Your task to perform on an android device: Show me popular games on the Play Store Image 0: 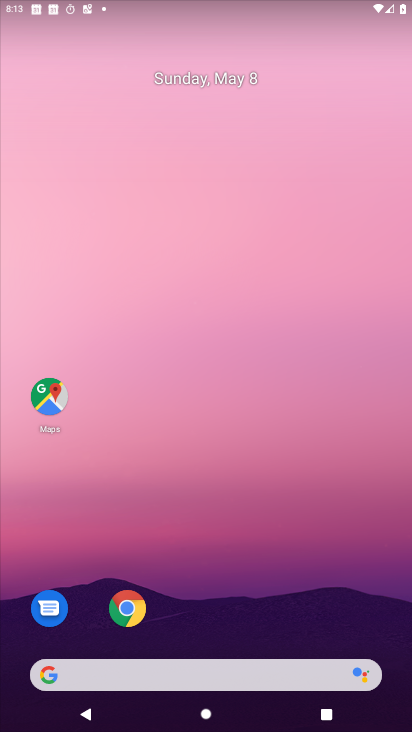
Step 0: drag from (265, 562) to (293, 124)
Your task to perform on an android device: Show me popular games on the Play Store Image 1: 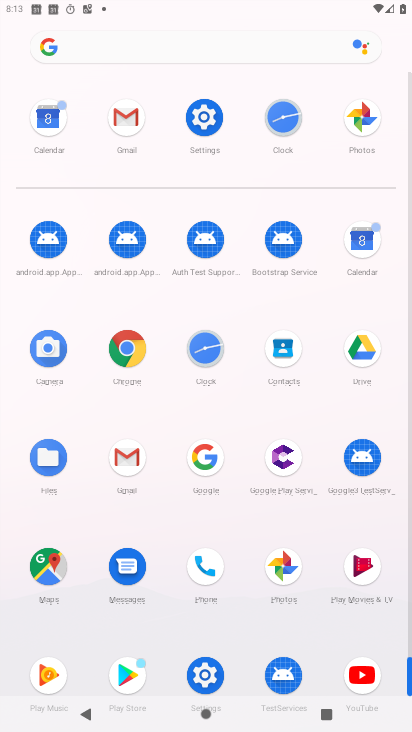
Step 1: click (126, 661)
Your task to perform on an android device: Show me popular games on the Play Store Image 2: 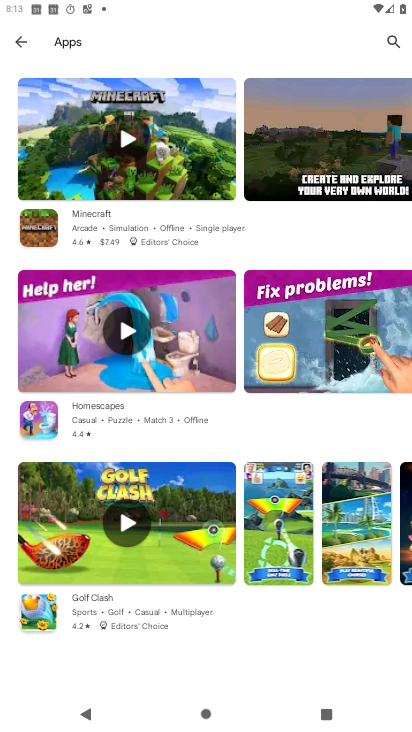
Step 2: press back button
Your task to perform on an android device: Show me popular games on the Play Store Image 3: 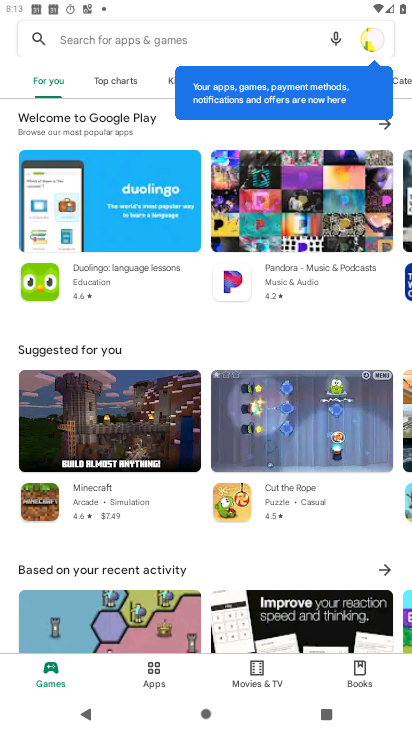
Step 3: drag from (231, 545) to (235, 283)
Your task to perform on an android device: Show me popular games on the Play Store Image 4: 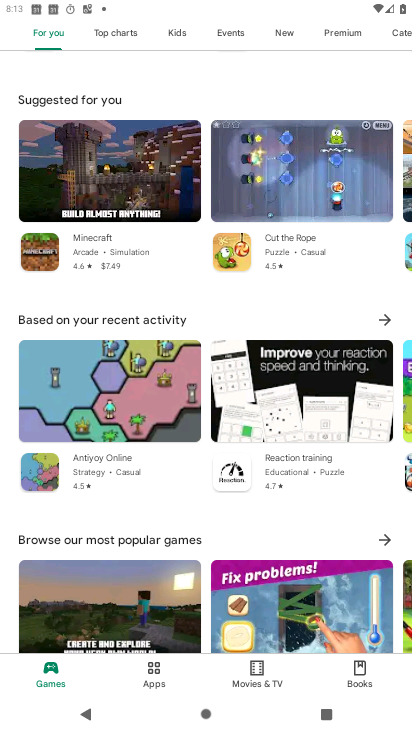
Step 4: click (377, 540)
Your task to perform on an android device: Show me popular games on the Play Store Image 5: 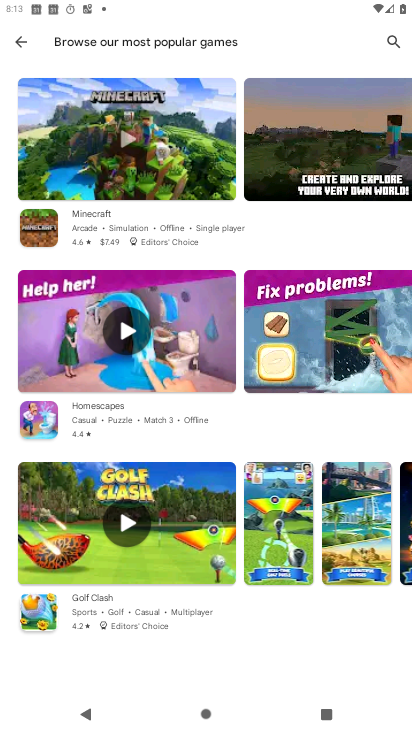
Step 5: task complete